Your task to perform on an android device: Go to display settings Image 0: 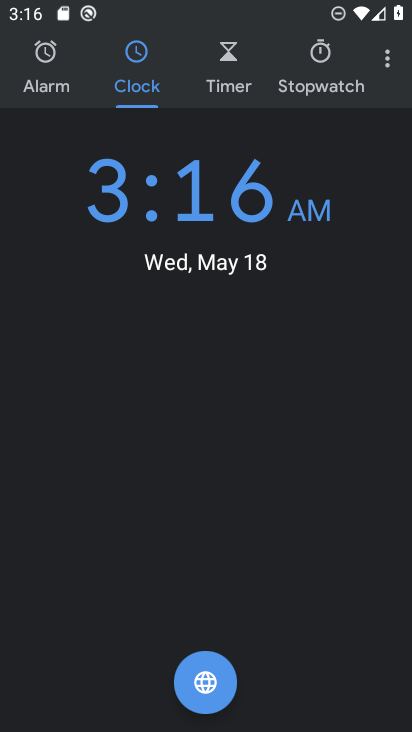
Step 0: press home button
Your task to perform on an android device: Go to display settings Image 1: 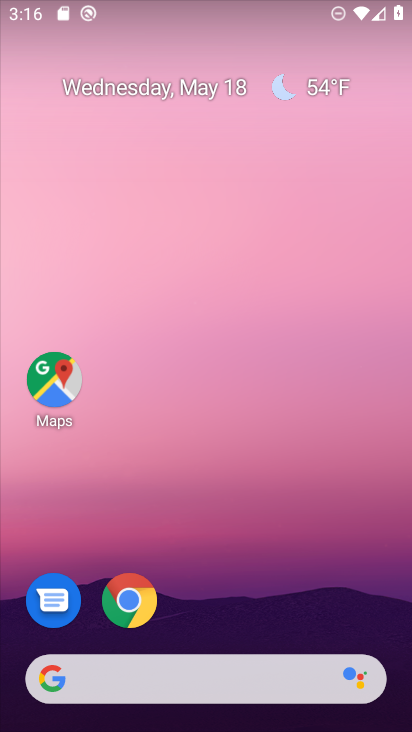
Step 1: drag from (211, 589) to (250, 29)
Your task to perform on an android device: Go to display settings Image 2: 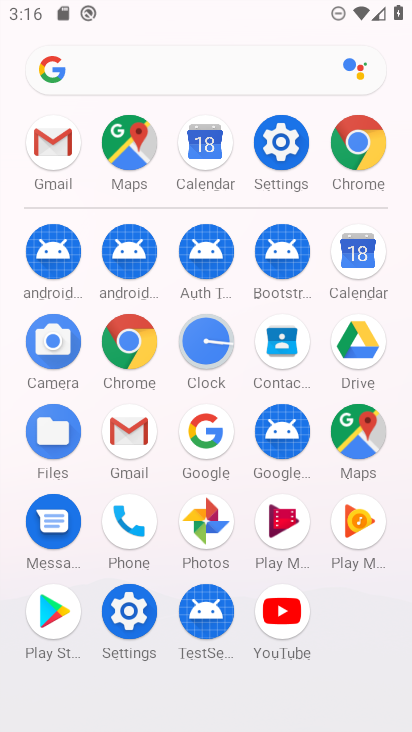
Step 2: click (293, 162)
Your task to perform on an android device: Go to display settings Image 3: 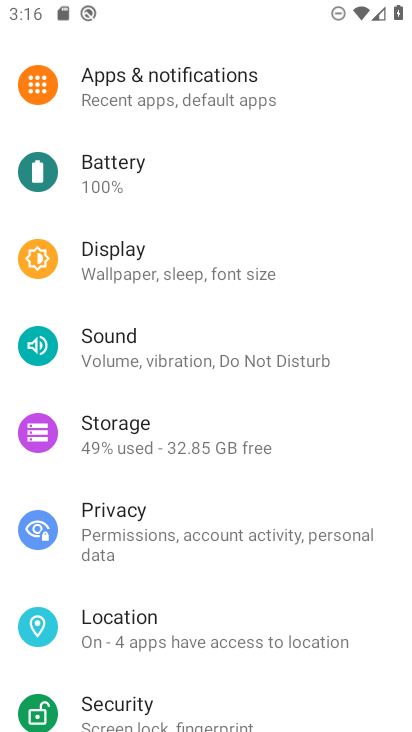
Step 3: click (141, 267)
Your task to perform on an android device: Go to display settings Image 4: 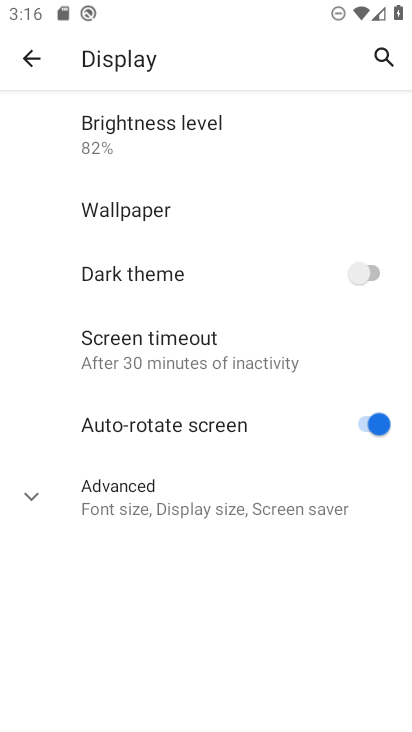
Step 4: task complete